Your task to perform on an android device: remove spam from my inbox in the gmail app Image 0: 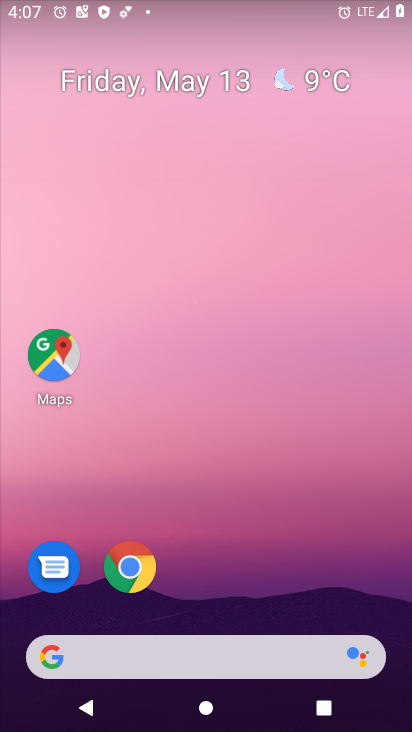
Step 0: drag from (341, 594) to (342, 10)
Your task to perform on an android device: remove spam from my inbox in the gmail app Image 1: 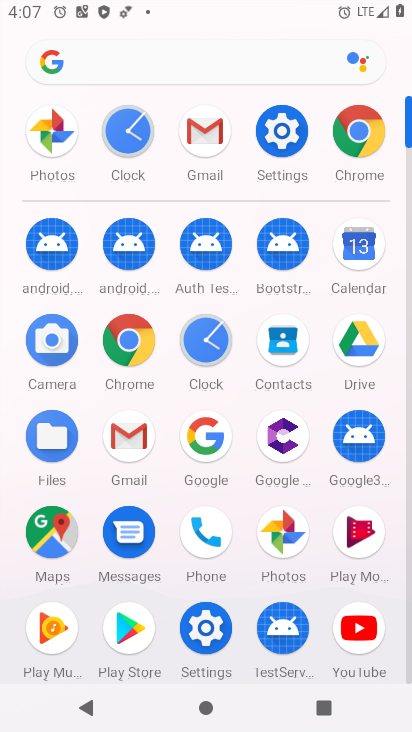
Step 1: click (202, 139)
Your task to perform on an android device: remove spam from my inbox in the gmail app Image 2: 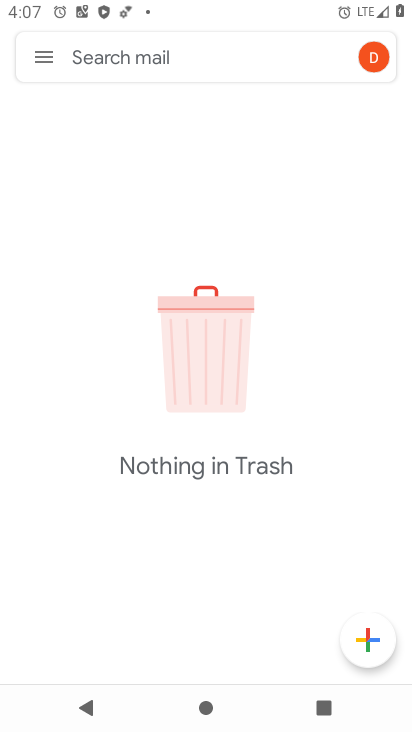
Step 2: click (40, 55)
Your task to perform on an android device: remove spam from my inbox in the gmail app Image 3: 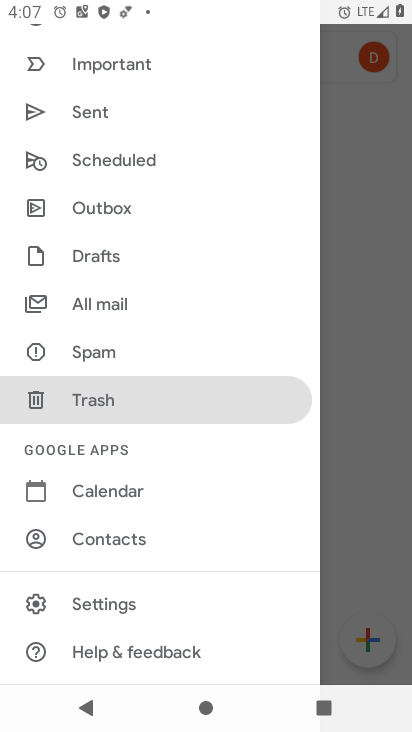
Step 3: click (97, 353)
Your task to perform on an android device: remove spam from my inbox in the gmail app Image 4: 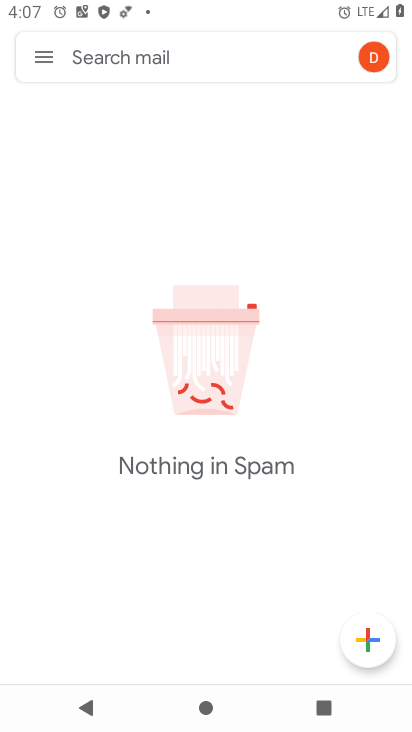
Step 4: task complete